Your task to perform on an android device: Go to privacy settings Image 0: 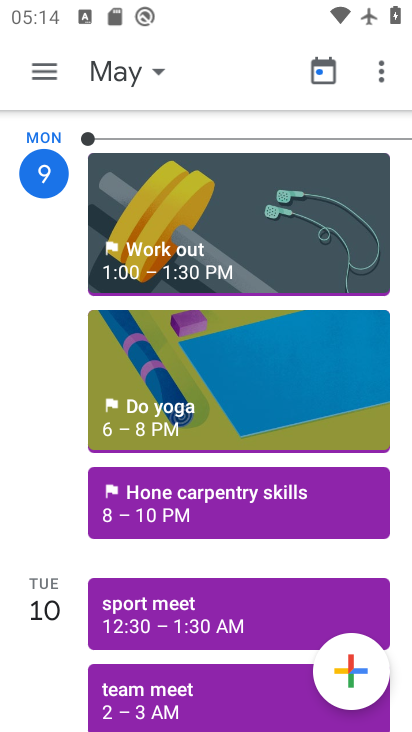
Step 0: press home button
Your task to perform on an android device: Go to privacy settings Image 1: 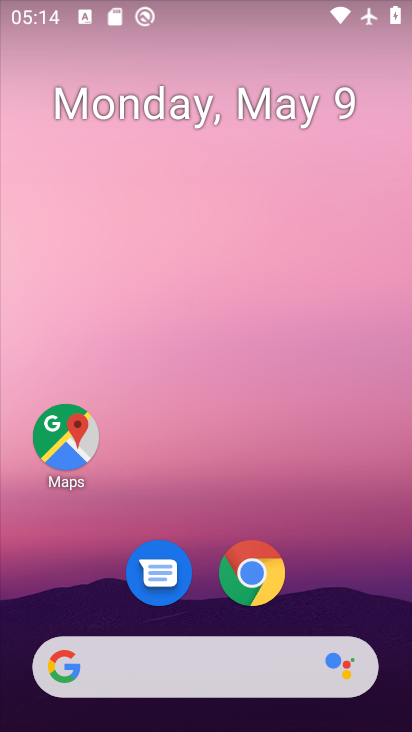
Step 1: drag from (378, 612) to (285, 58)
Your task to perform on an android device: Go to privacy settings Image 2: 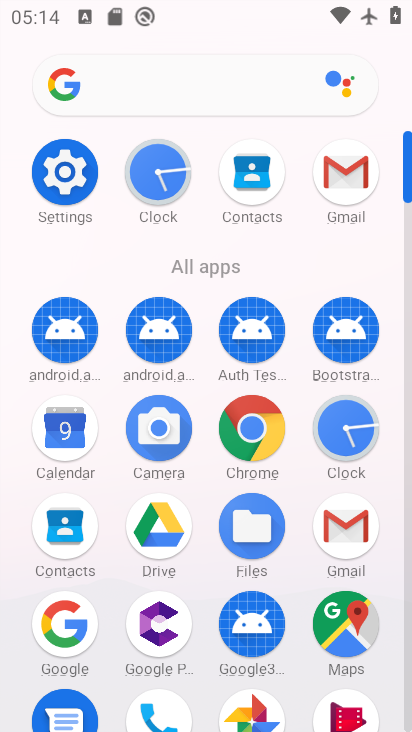
Step 2: click (406, 715)
Your task to perform on an android device: Go to privacy settings Image 3: 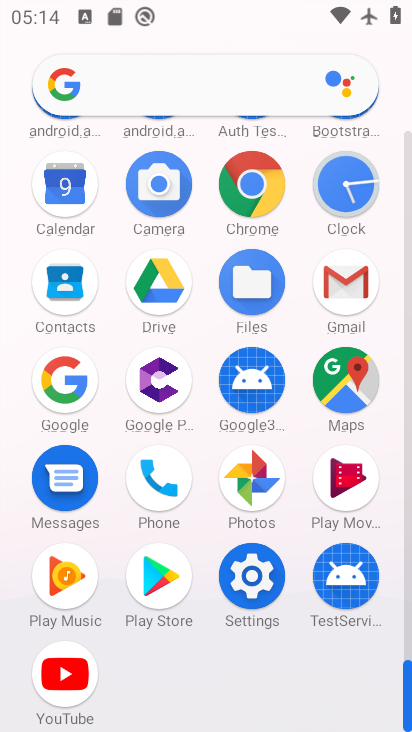
Step 3: click (247, 573)
Your task to perform on an android device: Go to privacy settings Image 4: 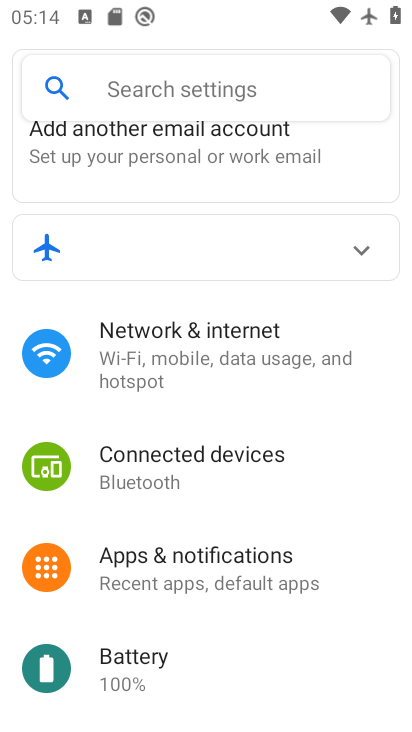
Step 4: drag from (250, 629) to (233, 13)
Your task to perform on an android device: Go to privacy settings Image 5: 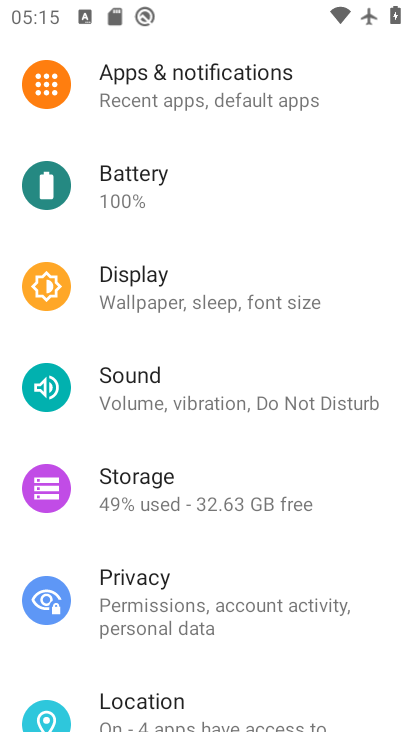
Step 5: click (126, 596)
Your task to perform on an android device: Go to privacy settings Image 6: 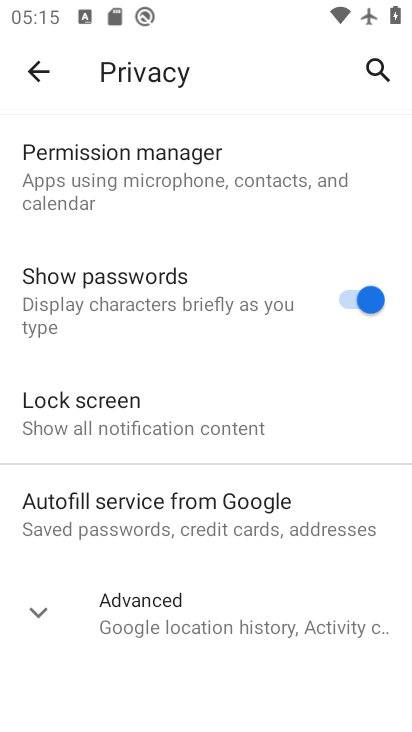
Step 6: click (41, 613)
Your task to perform on an android device: Go to privacy settings Image 7: 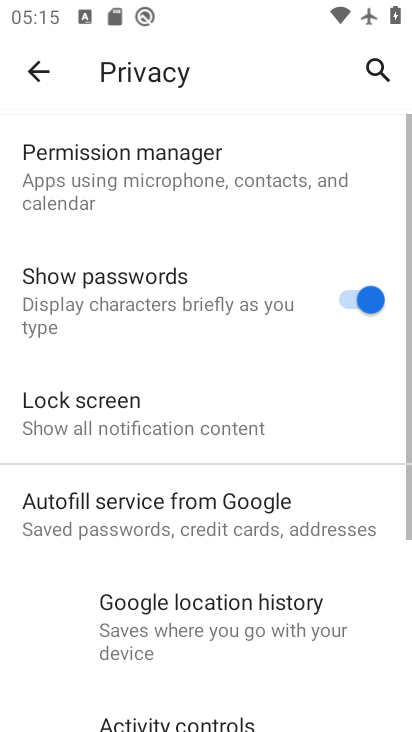
Step 7: task complete